Your task to perform on an android device: Search for "usb-c to usb-a" on costco, select the first entry, add it to the cart, then select checkout. Image 0: 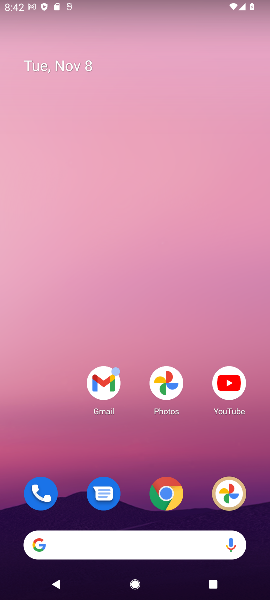
Step 0: click (168, 498)
Your task to perform on an android device: Search for "usb-c to usb-a" on costco, select the first entry, add it to the cart, then select checkout. Image 1: 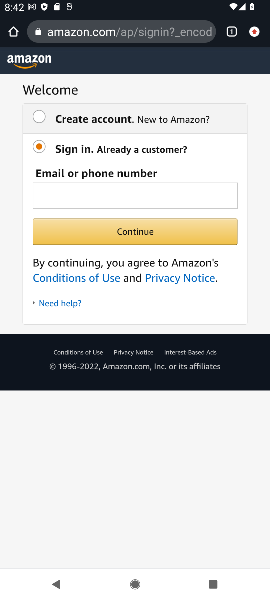
Step 1: click (109, 38)
Your task to perform on an android device: Search for "usb-c to usb-a" on costco, select the first entry, add it to the cart, then select checkout. Image 2: 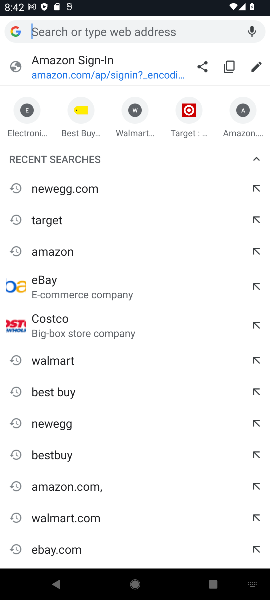
Step 2: type "costco.com"
Your task to perform on an android device: Search for "usb-c to usb-a" on costco, select the first entry, add it to the cart, then select checkout. Image 3: 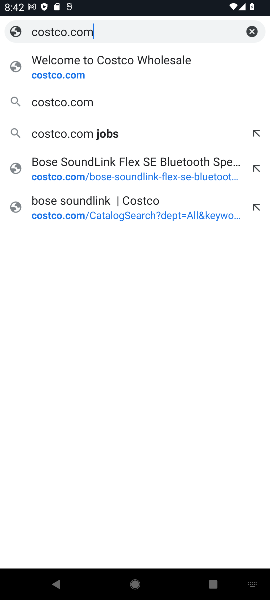
Step 3: click (53, 74)
Your task to perform on an android device: Search for "usb-c to usb-a" on costco, select the first entry, add it to the cart, then select checkout. Image 4: 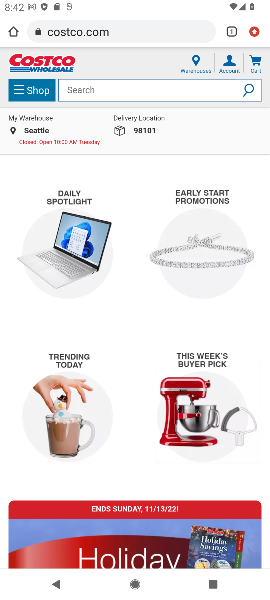
Step 4: click (90, 93)
Your task to perform on an android device: Search for "usb-c to usb-a" on costco, select the first entry, add it to the cart, then select checkout. Image 5: 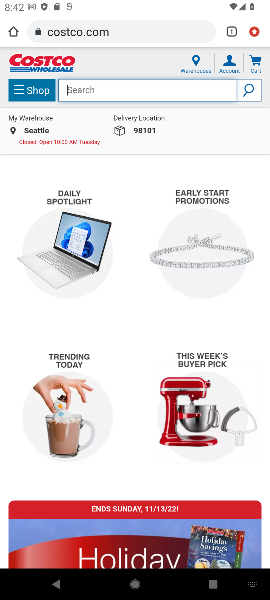
Step 5: type "usb-c to usb-a"
Your task to perform on an android device: Search for "usb-c to usb-a" on costco, select the first entry, add it to the cart, then select checkout. Image 6: 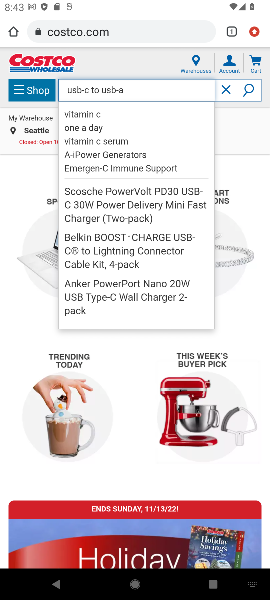
Step 6: click (252, 88)
Your task to perform on an android device: Search for "usb-c to usb-a" on costco, select the first entry, add it to the cart, then select checkout. Image 7: 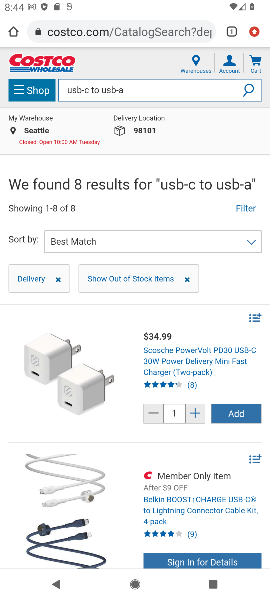
Step 7: task complete